Your task to perform on an android device: turn on translation in the chrome app Image 0: 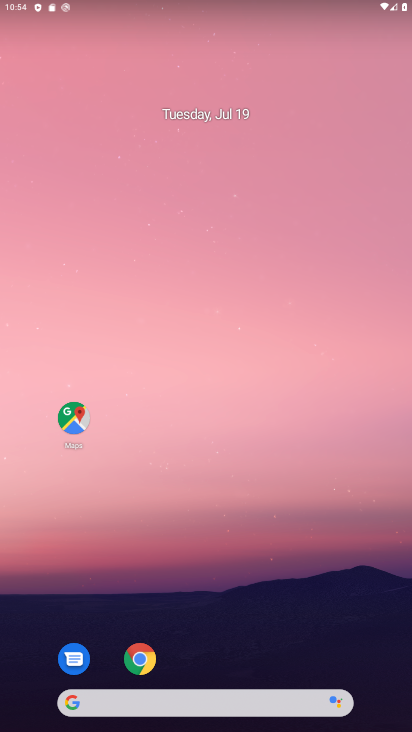
Step 0: click (149, 656)
Your task to perform on an android device: turn on translation in the chrome app Image 1: 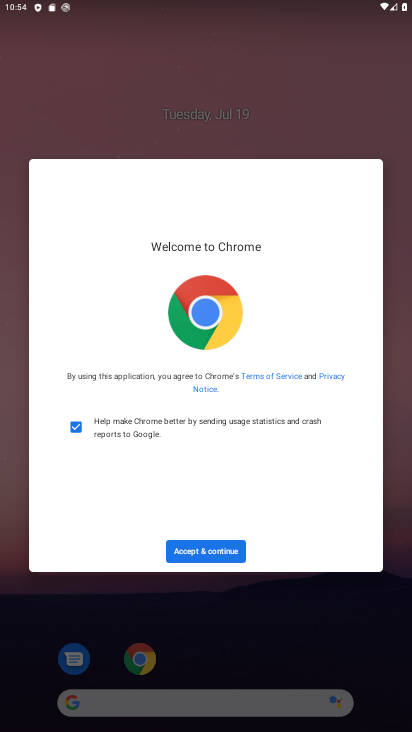
Step 1: click (212, 554)
Your task to perform on an android device: turn on translation in the chrome app Image 2: 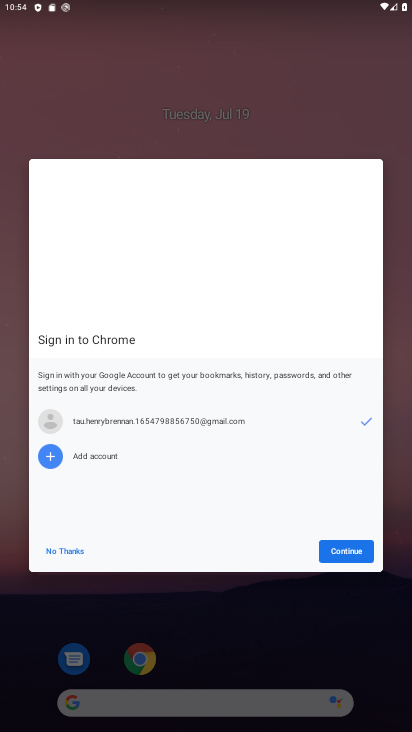
Step 2: click (354, 556)
Your task to perform on an android device: turn on translation in the chrome app Image 3: 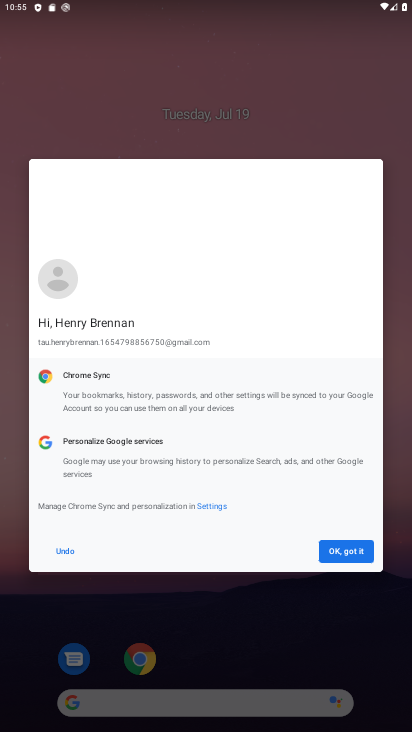
Step 3: click (347, 554)
Your task to perform on an android device: turn on translation in the chrome app Image 4: 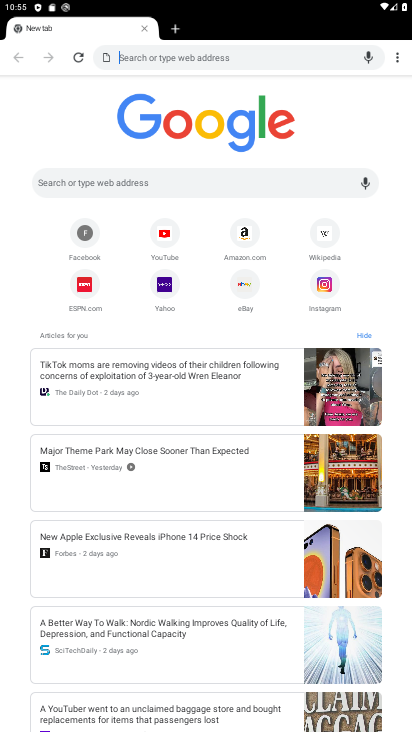
Step 4: click (398, 59)
Your task to perform on an android device: turn on translation in the chrome app Image 5: 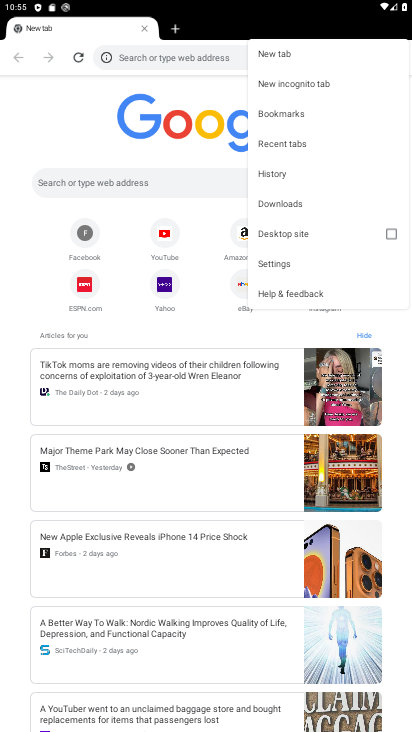
Step 5: click (296, 263)
Your task to perform on an android device: turn on translation in the chrome app Image 6: 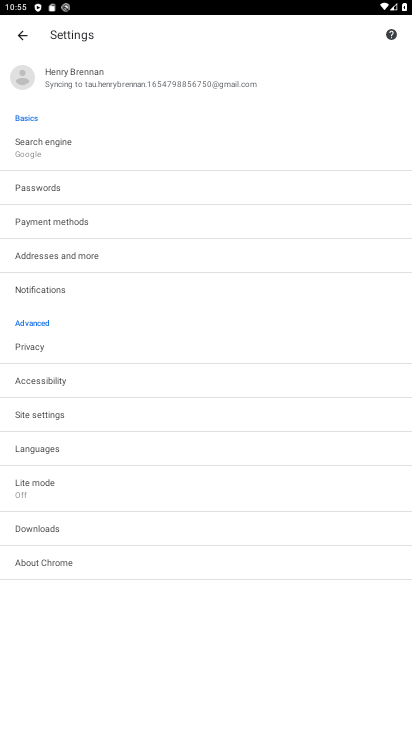
Step 6: click (39, 442)
Your task to perform on an android device: turn on translation in the chrome app Image 7: 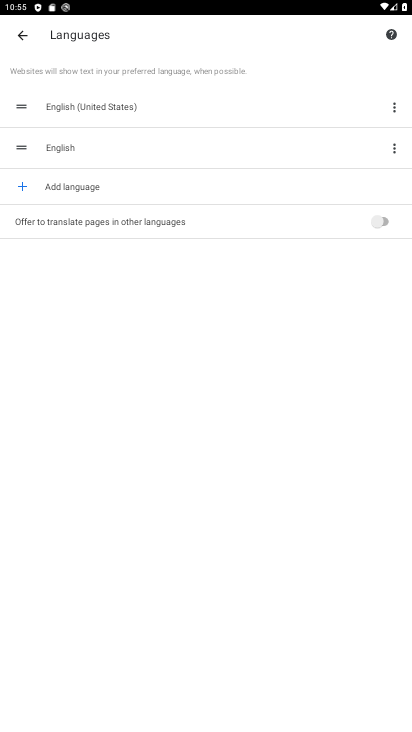
Step 7: click (373, 219)
Your task to perform on an android device: turn on translation in the chrome app Image 8: 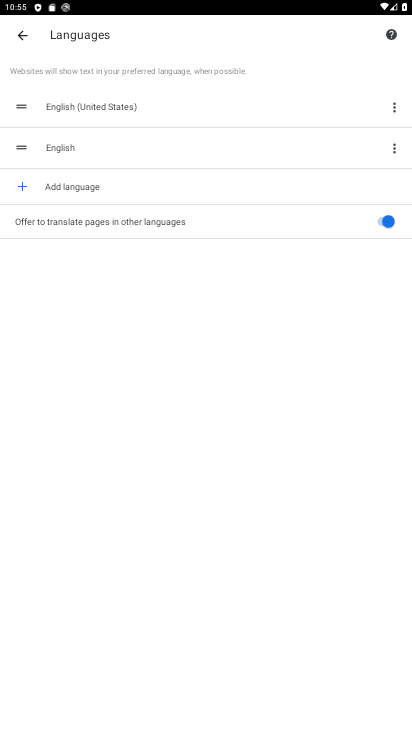
Step 8: task complete